Your task to perform on an android device: Empty the shopping cart on walmart.com. Add "acer predator" to the cart on walmart.com Image 0: 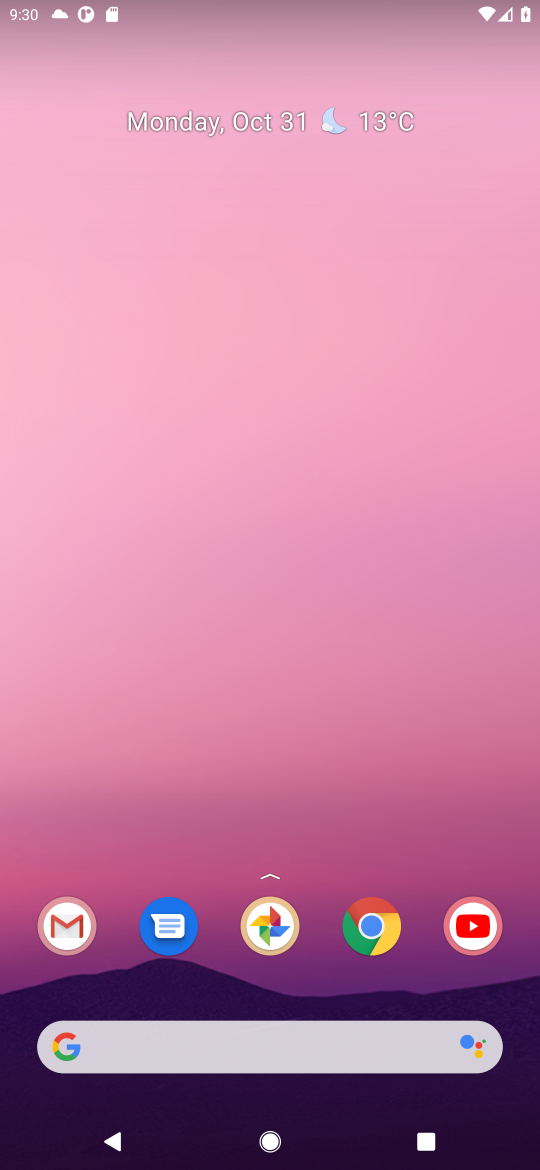
Step 0: click (381, 934)
Your task to perform on an android device: Empty the shopping cart on walmart.com. Add "acer predator" to the cart on walmart.com Image 1: 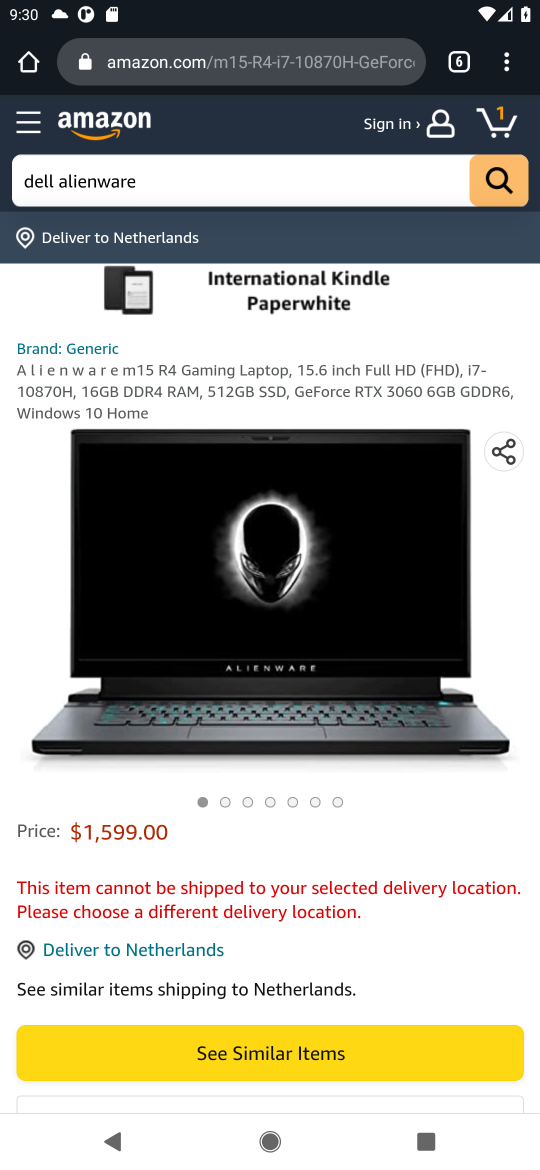
Step 1: click (460, 57)
Your task to perform on an android device: Empty the shopping cart on walmart.com. Add "acer predator" to the cart on walmart.com Image 2: 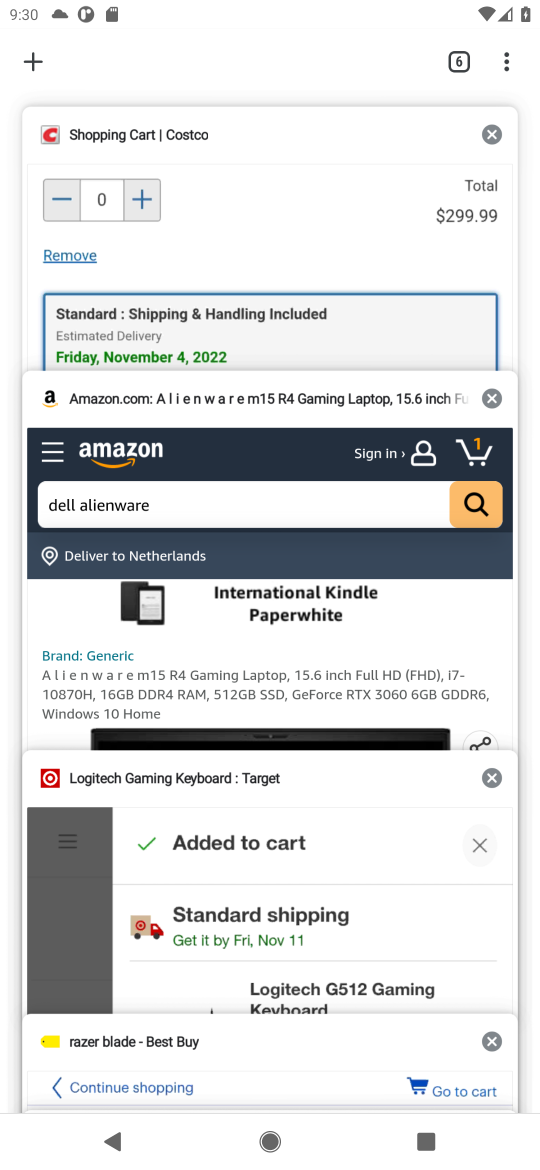
Step 2: click (171, 1046)
Your task to perform on an android device: Empty the shopping cart on walmart.com. Add "acer predator" to the cart on walmart.com Image 3: 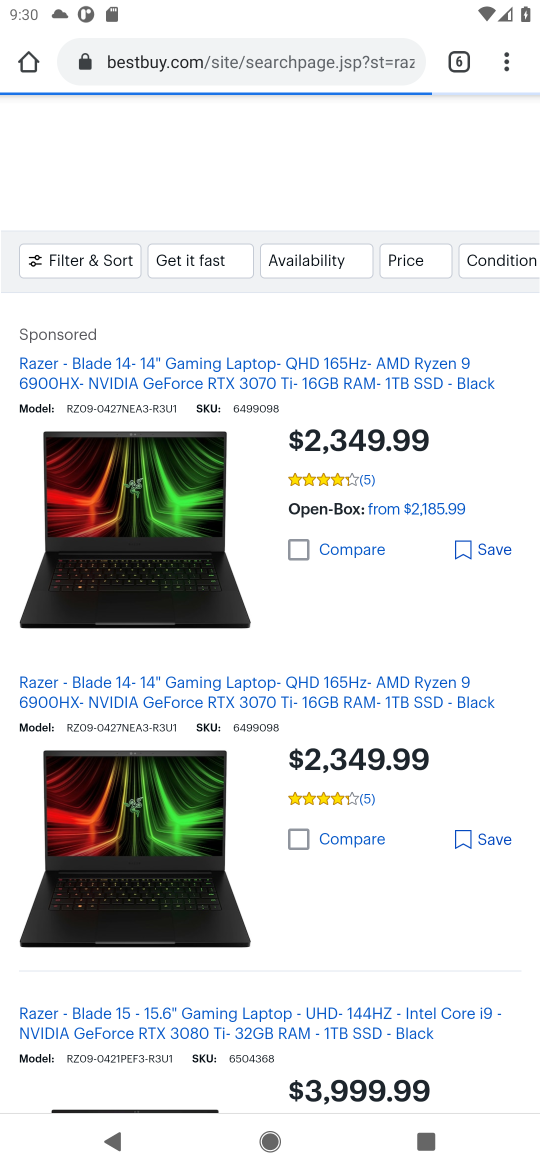
Step 3: click (513, 172)
Your task to perform on an android device: Empty the shopping cart on walmart.com. Add "acer predator" to the cart on walmart.com Image 4: 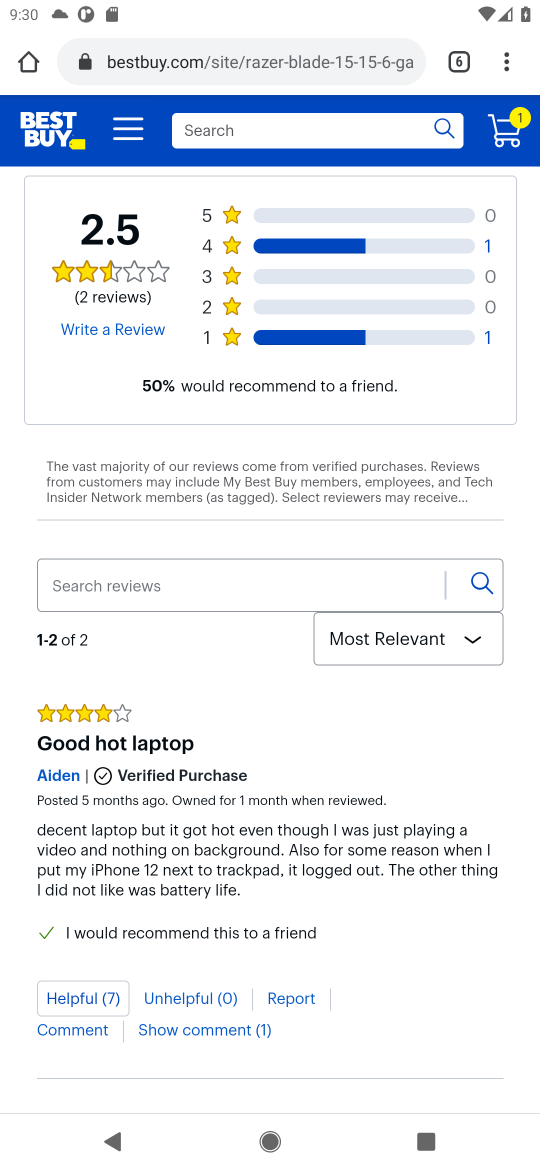
Step 4: drag from (386, 392) to (387, 996)
Your task to perform on an android device: Empty the shopping cart on walmart.com. Add "acer predator" to the cart on walmart.com Image 5: 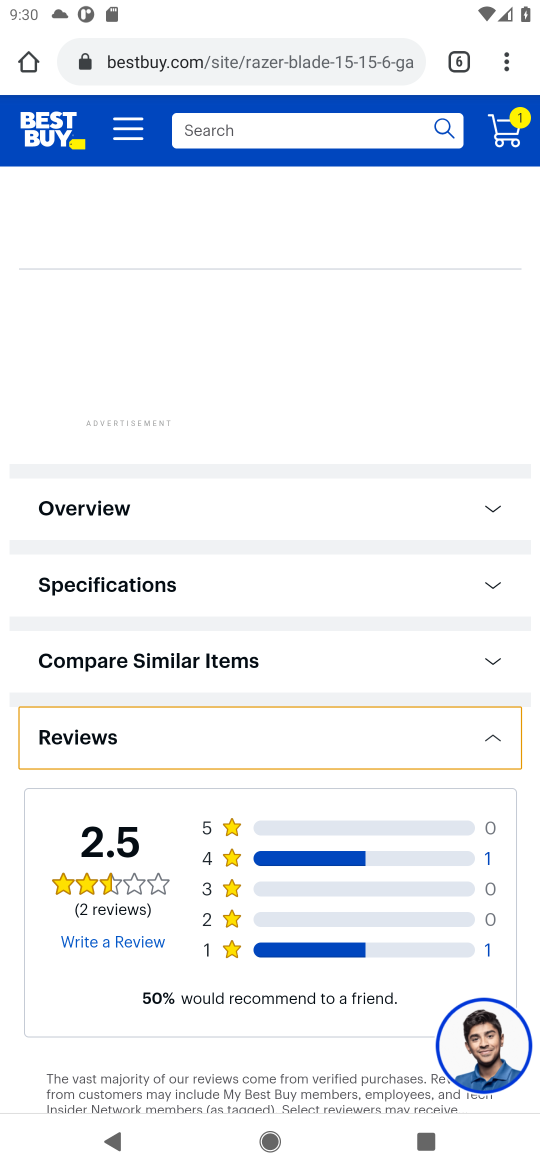
Step 5: click (522, 117)
Your task to perform on an android device: Empty the shopping cart on walmart.com. Add "acer predator" to the cart on walmart.com Image 6: 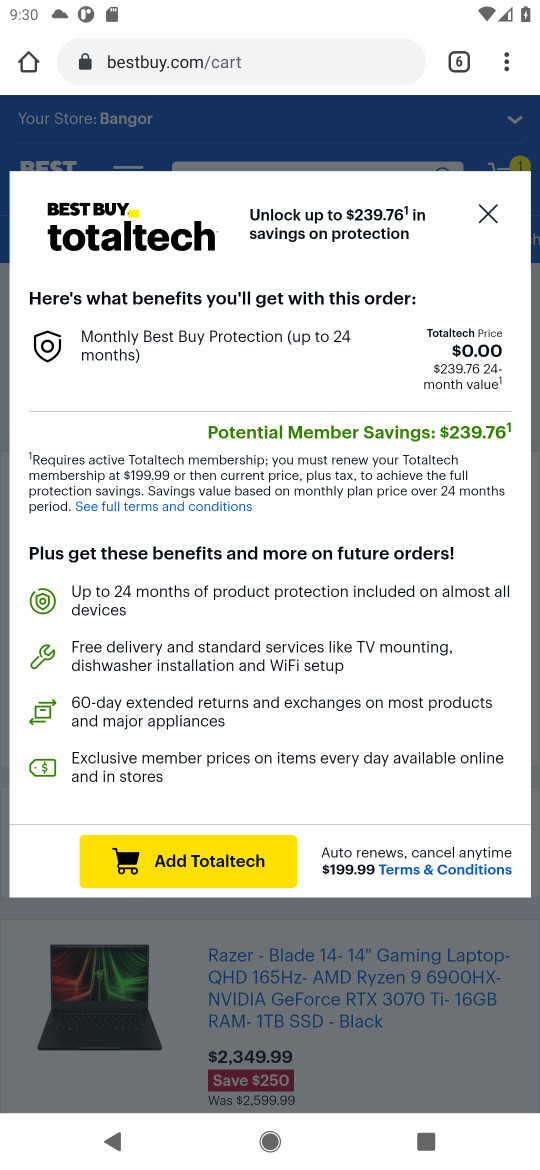
Step 6: click (481, 212)
Your task to perform on an android device: Empty the shopping cart on walmart.com. Add "acer predator" to the cart on walmart.com Image 7: 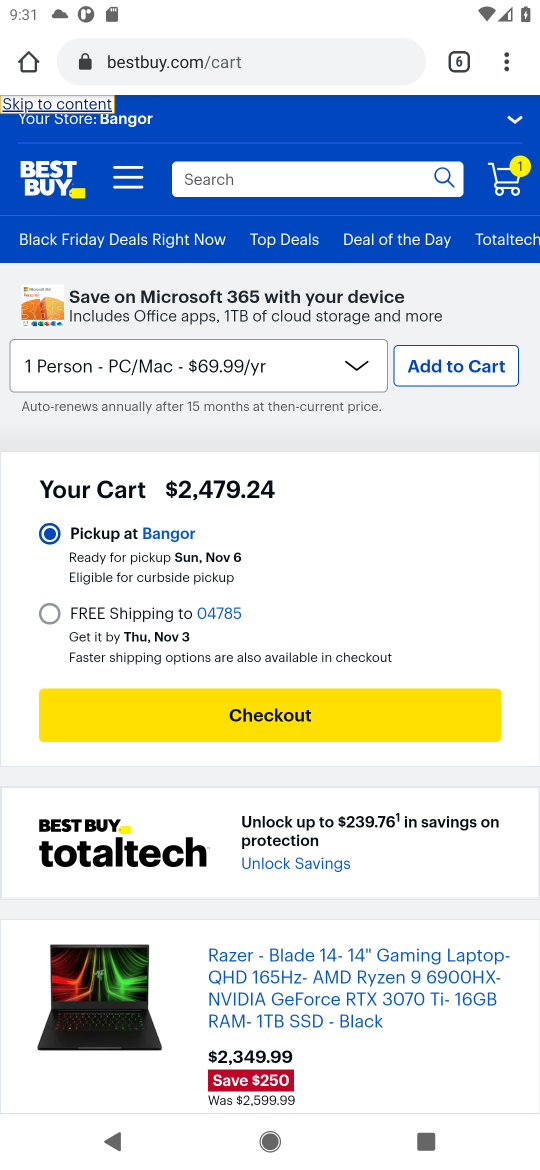
Step 7: drag from (201, 1037) to (261, 556)
Your task to perform on an android device: Empty the shopping cart on walmart.com. Add "acer predator" to the cart on walmart.com Image 8: 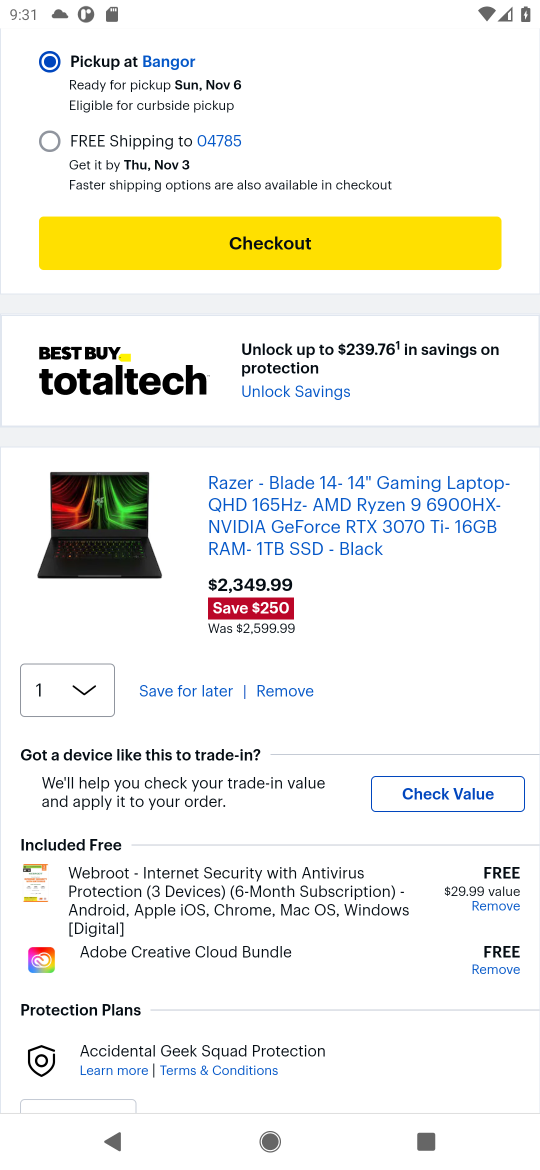
Step 8: click (266, 688)
Your task to perform on an android device: Empty the shopping cart on walmart.com. Add "acer predator" to the cart on walmart.com Image 9: 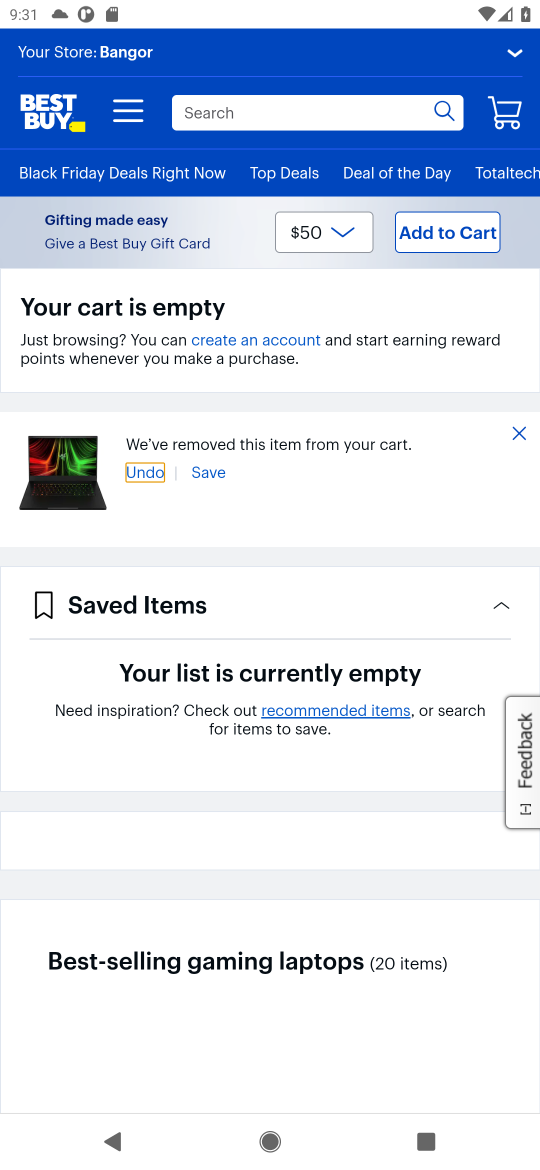
Step 9: click (201, 119)
Your task to perform on an android device: Empty the shopping cart on walmart.com. Add "acer predator" to the cart on walmart.com Image 10: 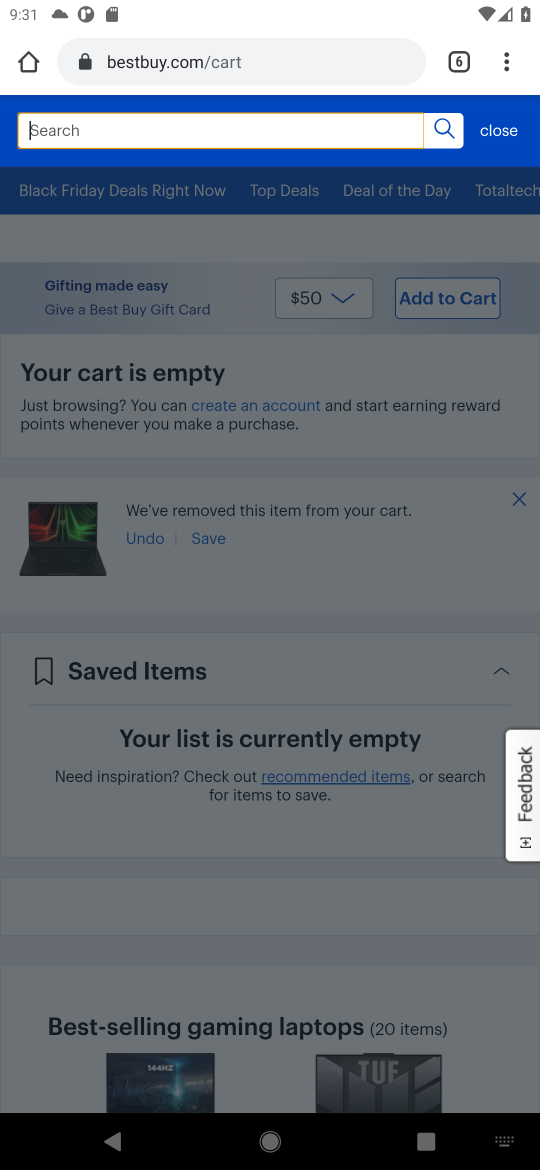
Step 10: type "acer predator"
Your task to perform on an android device: Empty the shopping cart on walmart.com. Add "acer predator" to the cart on walmart.com Image 11: 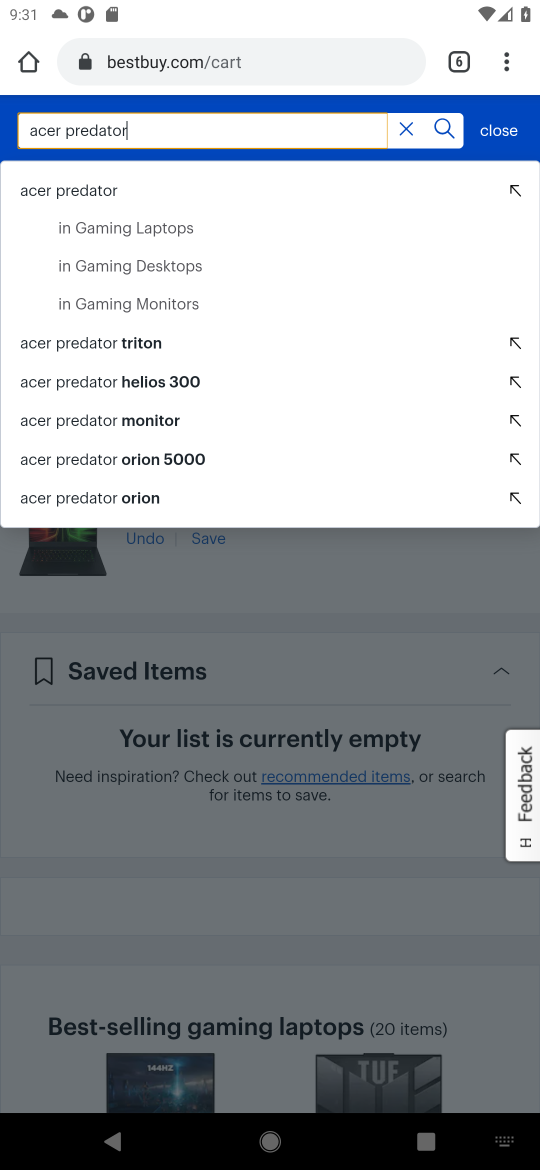
Step 11: click (87, 193)
Your task to perform on an android device: Empty the shopping cart on walmart.com. Add "acer predator" to the cart on walmart.com Image 12: 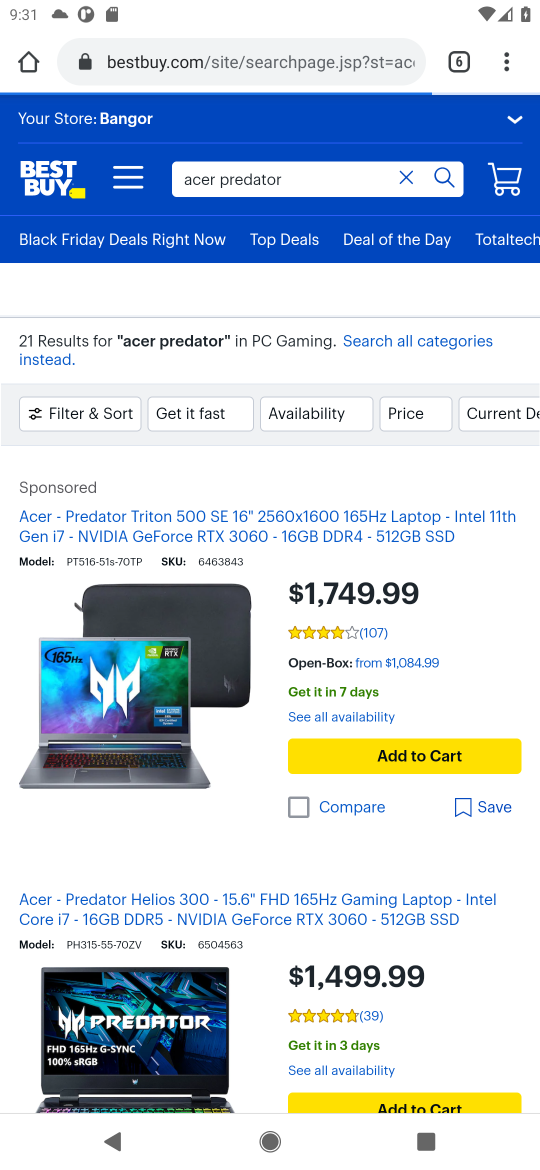
Step 12: click (405, 753)
Your task to perform on an android device: Empty the shopping cart on walmart.com. Add "acer predator" to the cart on walmart.com Image 13: 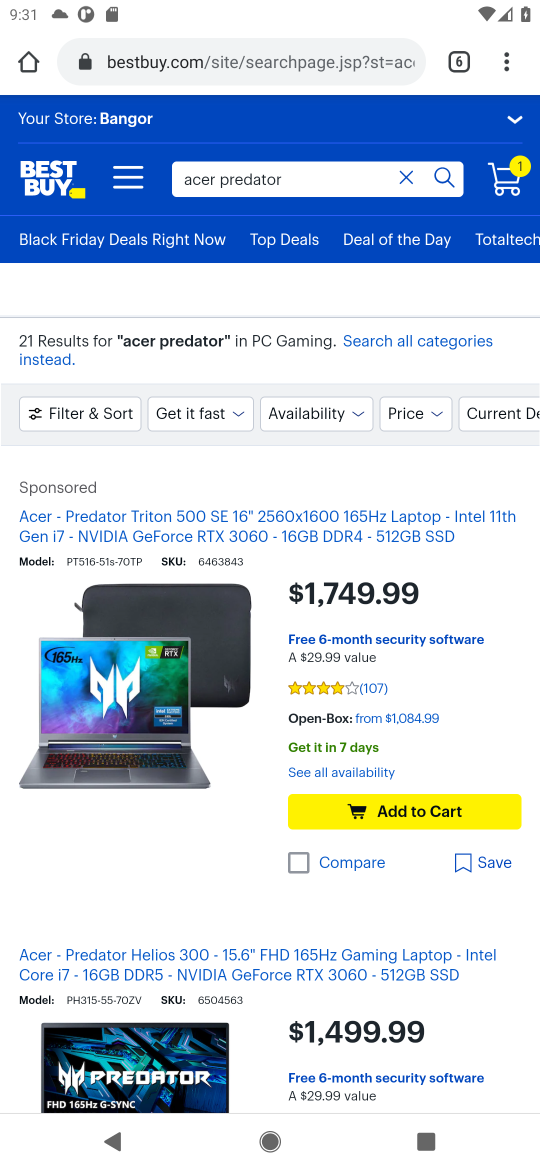
Step 13: task complete